Your task to perform on an android device: check out phone information Image 0: 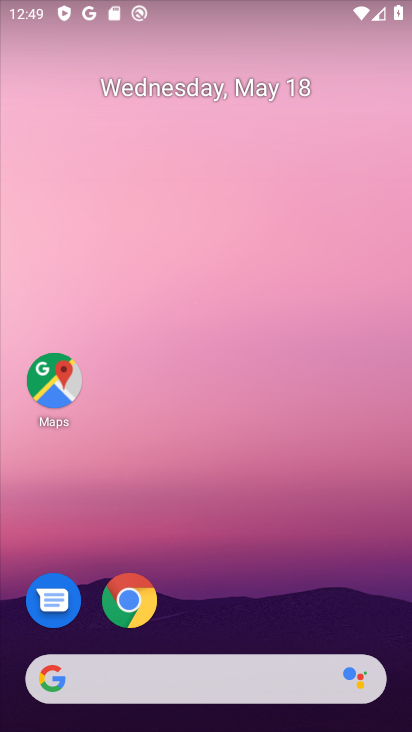
Step 0: drag from (192, 632) to (274, 313)
Your task to perform on an android device: check out phone information Image 1: 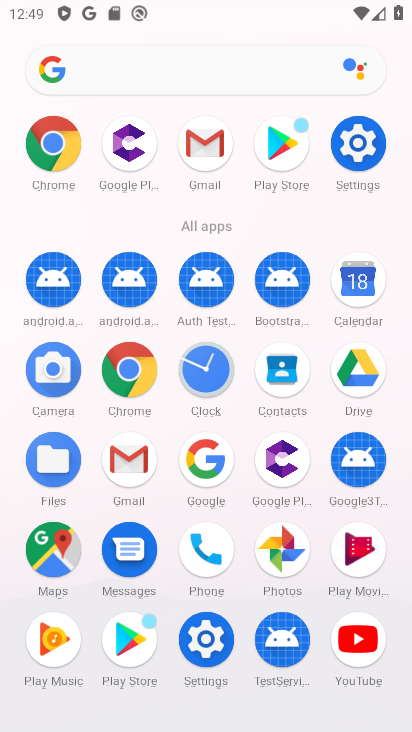
Step 1: click (359, 134)
Your task to perform on an android device: check out phone information Image 2: 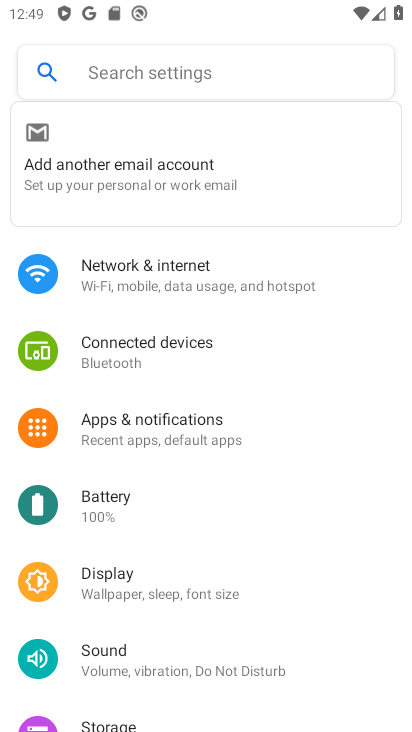
Step 2: task complete